Your task to perform on an android device: change the clock style Image 0: 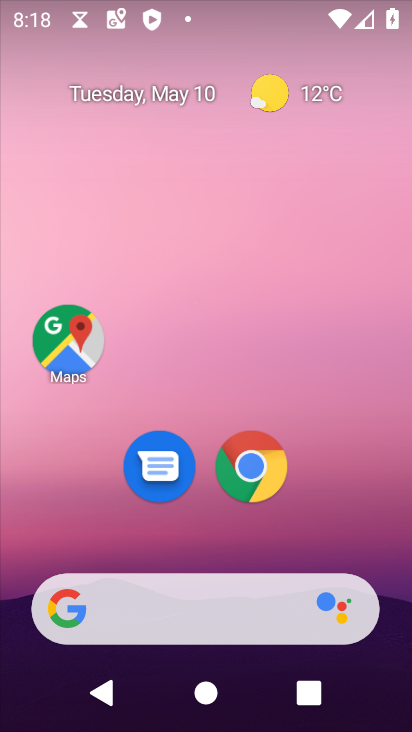
Step 0: drag from (204, 551) to (300, 10)
Your task to perform on an android device: change the clock style Image 1: 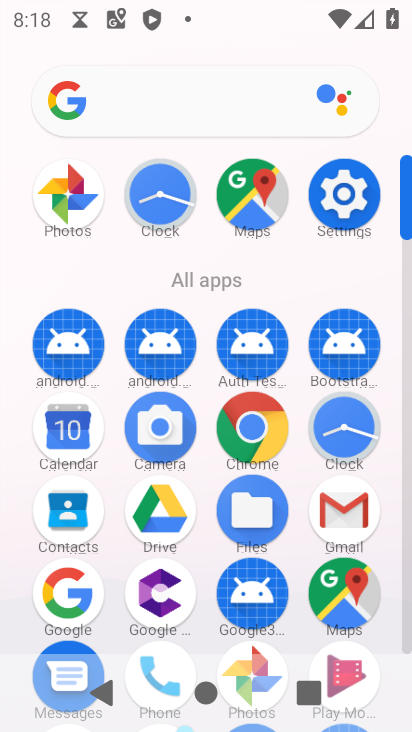
Step 1: click (348, 436)
Your task to perform on an android device: change the clock style Image 2: 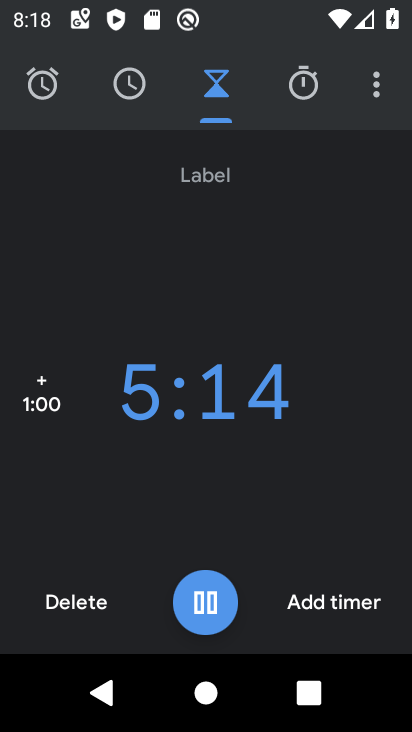
Step 2: click (370, 76)
Your task to perform on an android device: change the clock style Image 3: 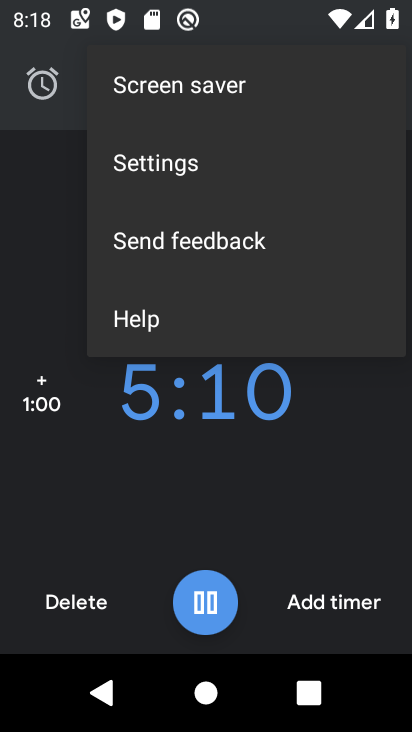
Step 3: click (196, 166)
Your task to perform on an android device: change the clock style Image 4: 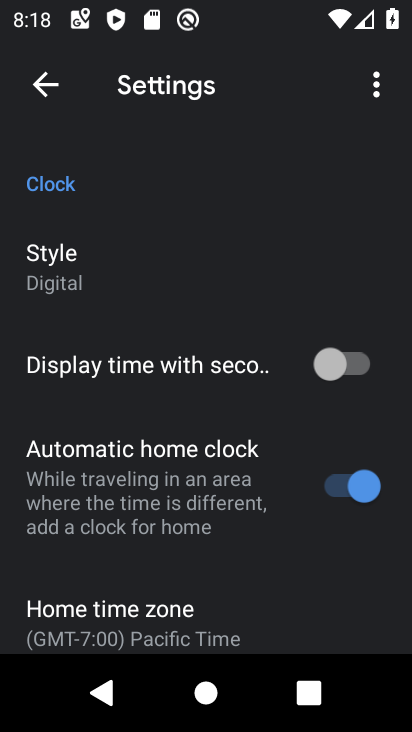
Step 4: click (67, 277)
Your task to perform on an android device: change the clock style Image 5: 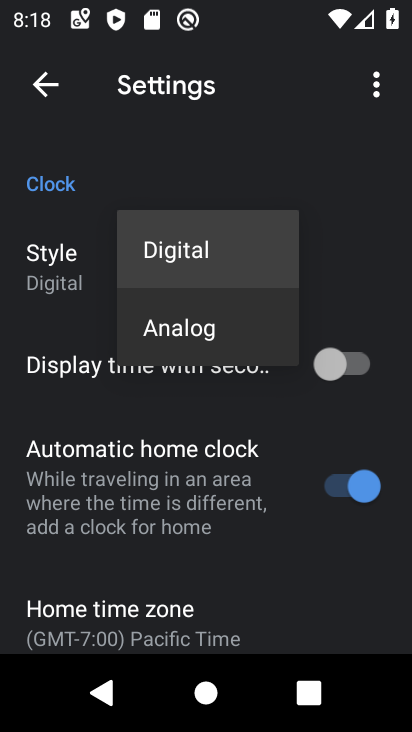
Step 5: click (190, 331)
Your task to perform on an android device: change the clock style Image 6: 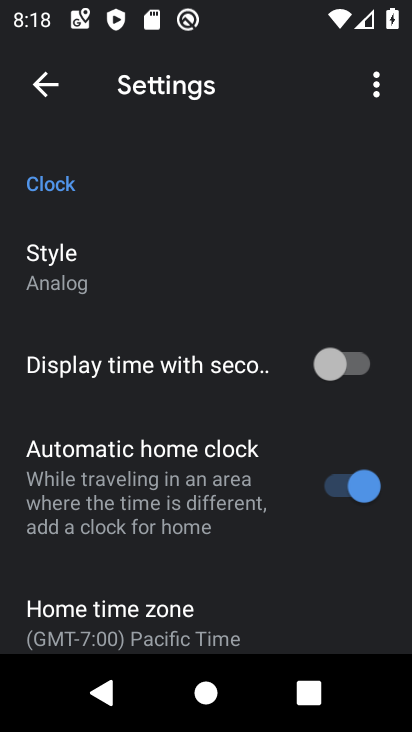
Step 6: task complete